Your task to perform on an android device: Go to calendar. Show me events next week Image 0: 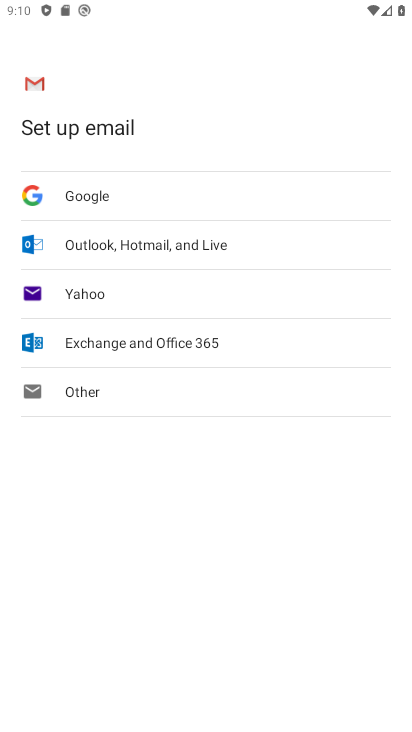
Step 0: press home button
Your task to perform on an android device: Go to calendar. Show me events next week Image 1: 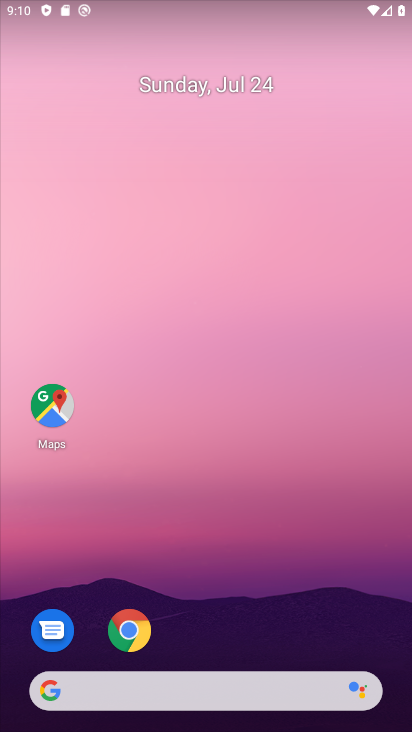
Step 1: drag from (240, 639) to (270, 75)
Your task to perform on an android device: Go to calendar. Show me events next week Image 2: 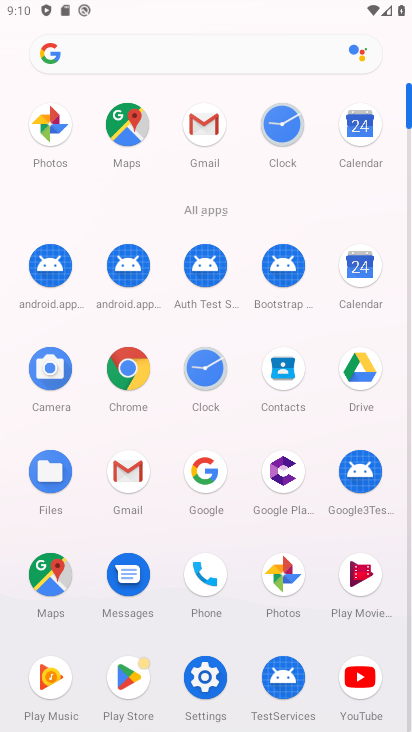
Step 2: click (360, 277)
Your task to perform on an android device: Go to calendar. Show me events next week Image 3: 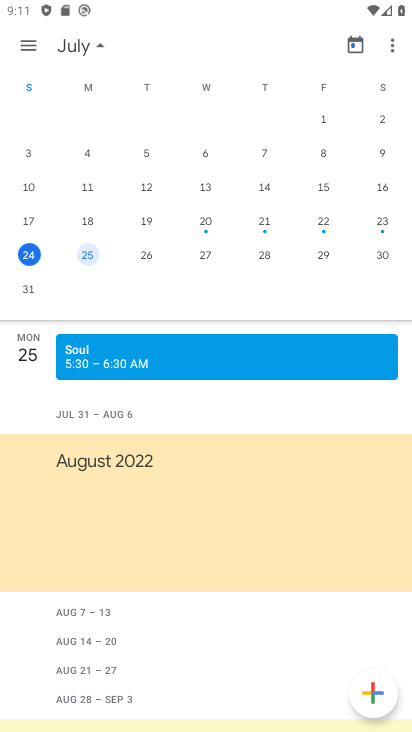
Step 3: click (32, 291)
Your task to perform on an android device: Go to calendar. Show me events next week Image 4: 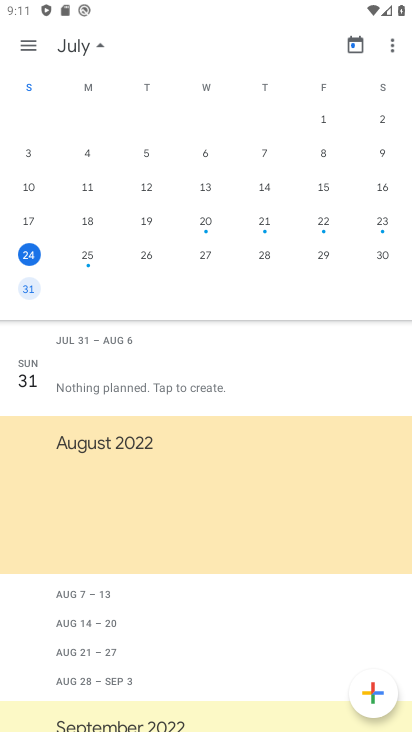
Step 4: task complete